Your task to perform on an android device: check google app version Image 0: 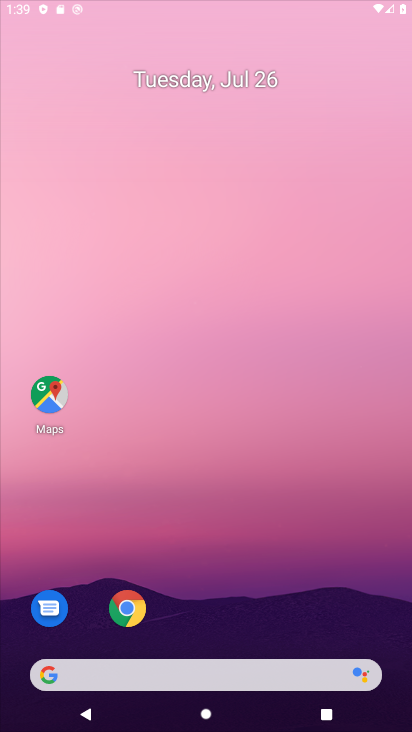
Step 0: press home button
Your task to perform on an android device: check google app version Image 1: 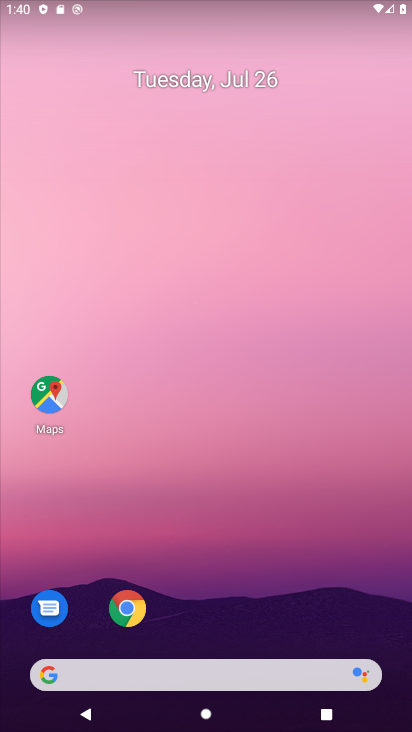
Step 1: drag from (270, 600) to (278, 163)
Your task to perform on an android device: check google app version Image 2: 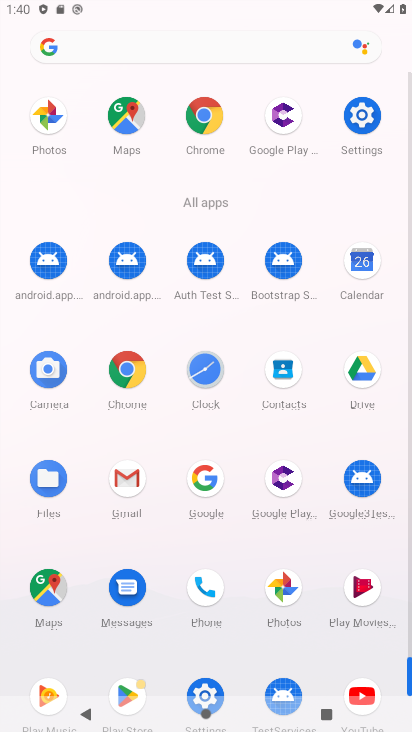
Step 2: click (212, 487)
Your task to perform on an android device: check google app version Image 3: 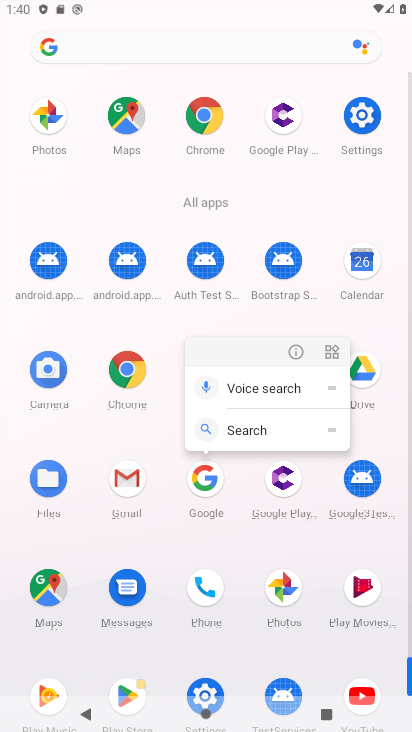
Step 3: click (297, 343)
Your task to perform on an android device: check google app version Image 4: 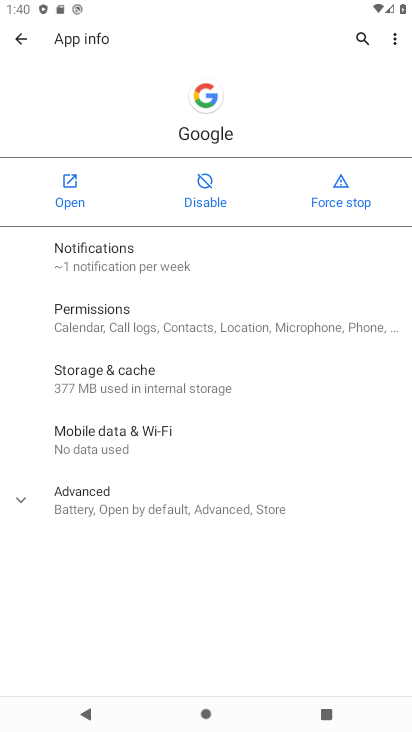
Step 4: click (84, 501)
Your task to perform on an android device: check google app version Image 5: 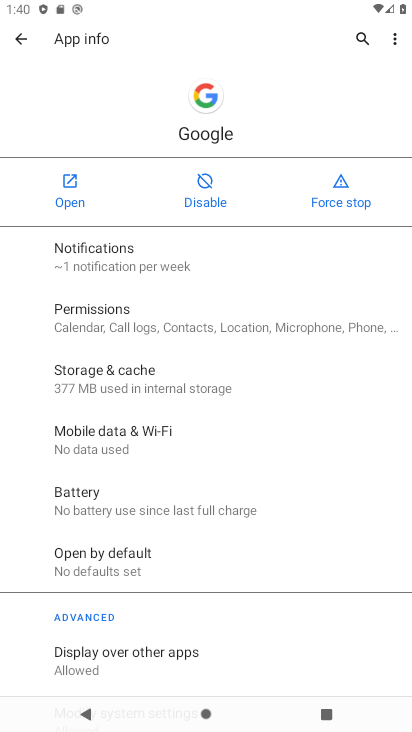
Step 5: task complete